Your task to perform on an android device: Open calendar and show me the second week of next month Image 0: 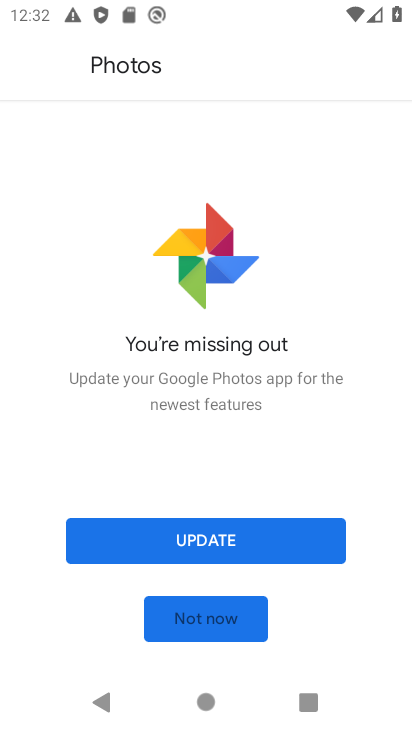
Step 0: press home button
Your task to perform on an android device: Open calendar and show me the second week of next month Image 1: 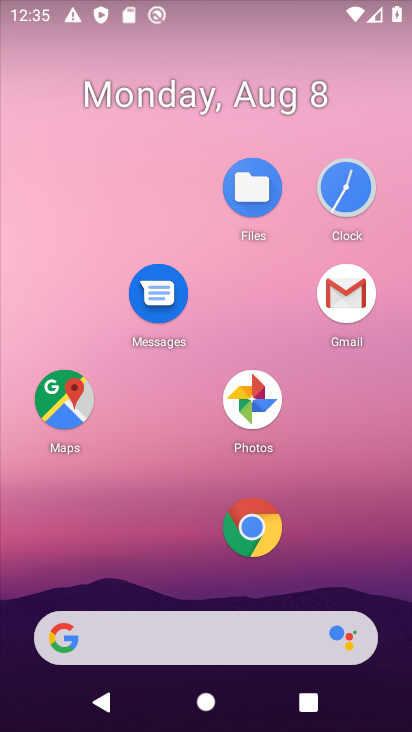
Step 1: drag from (329, 509) to (135, 7)
Your task to perform on an android device: Open calendar and show me the second week of next month Image 2: 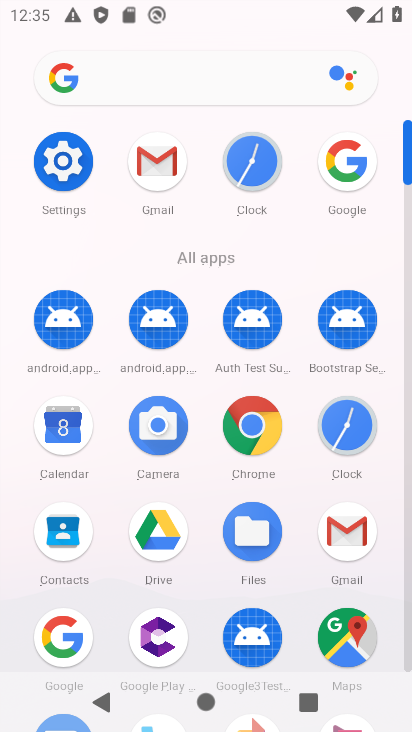
Step 2: click (77, 440)
Your task to perform on an android device: Open calendar and show me the second week of next month Image 3: 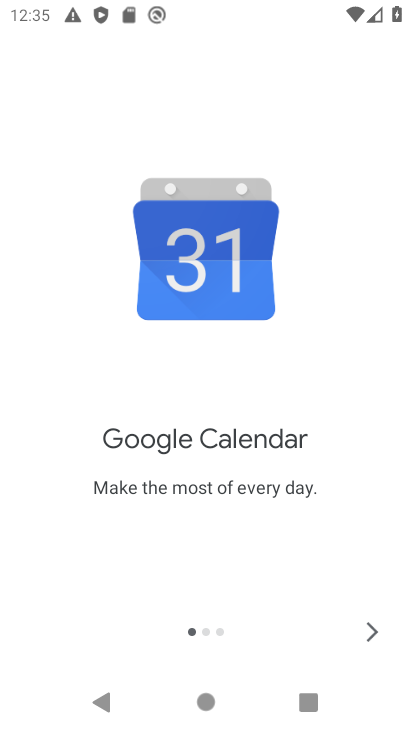
Step 3: task complete